Your task to perform on an android device: change the clock display to analog Image 0: 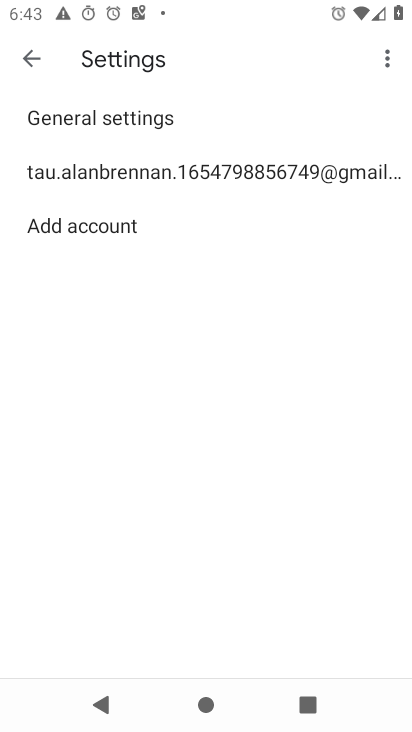
Step 0: press home button
Your task to perform on an android device: change the clock display to analog Image 1: 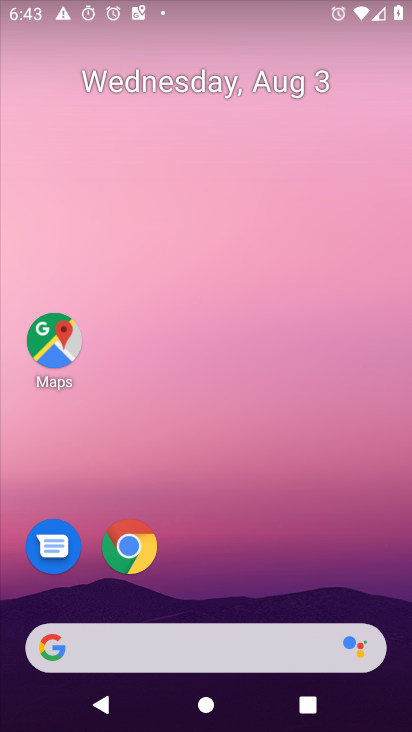
Step 1: drag from (223, 589) to (203, 70)
Your task to perform on an android device: change the clock display to analog Image 2: 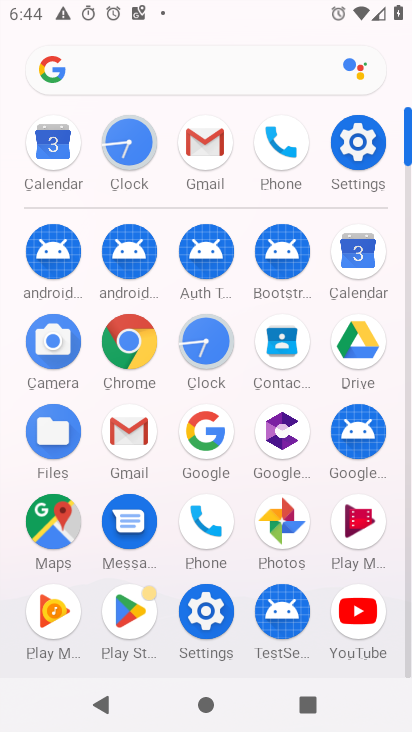
Step 2: click (141, 141)
Your task to perform on an android device: change the clock display to analog Image 3: 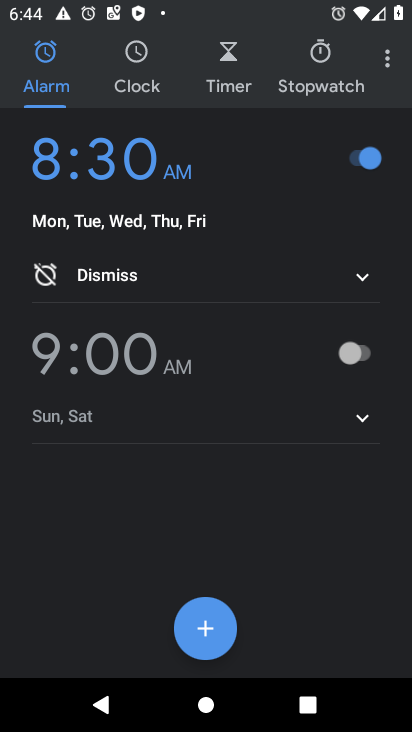
Step 3: click (401, 64)
Your task to perform on an android device: change the clock display to analog Image 4: 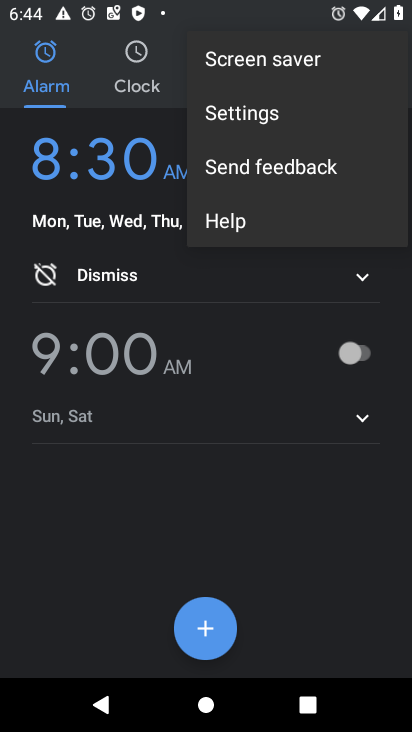
Step 4: click (238, 121)
Your task to perform on an android device: change the clock display to analog Image 5: 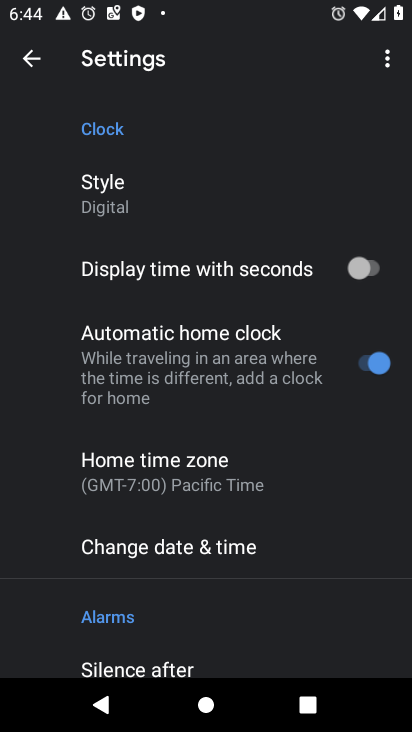
Step 5: click (100, 193)
Your task to perform on an android device: change the clock display to analog Image 6: 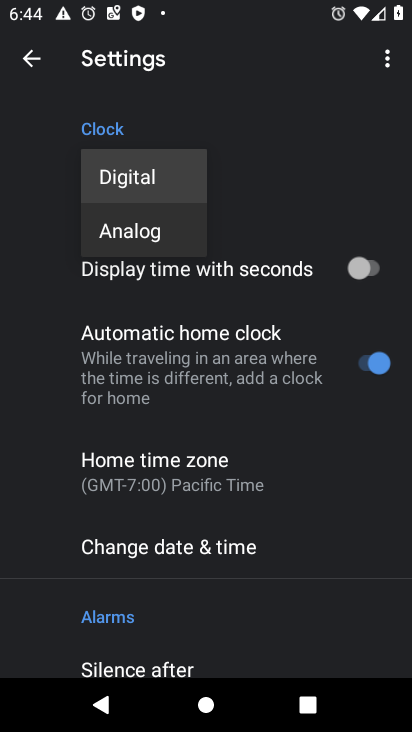
Step 6: click (131, 241)
Your task to perform on an android device: change the clock display to analog Image 7: 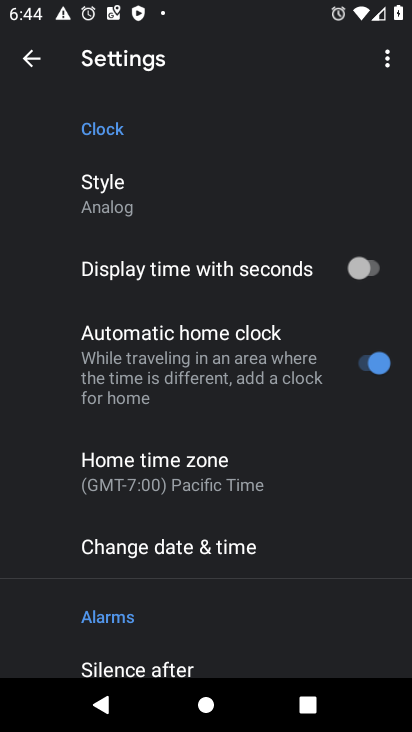
Step 7: task complete